Your task to perform on an android device: Go to ESPN.com Image 0: 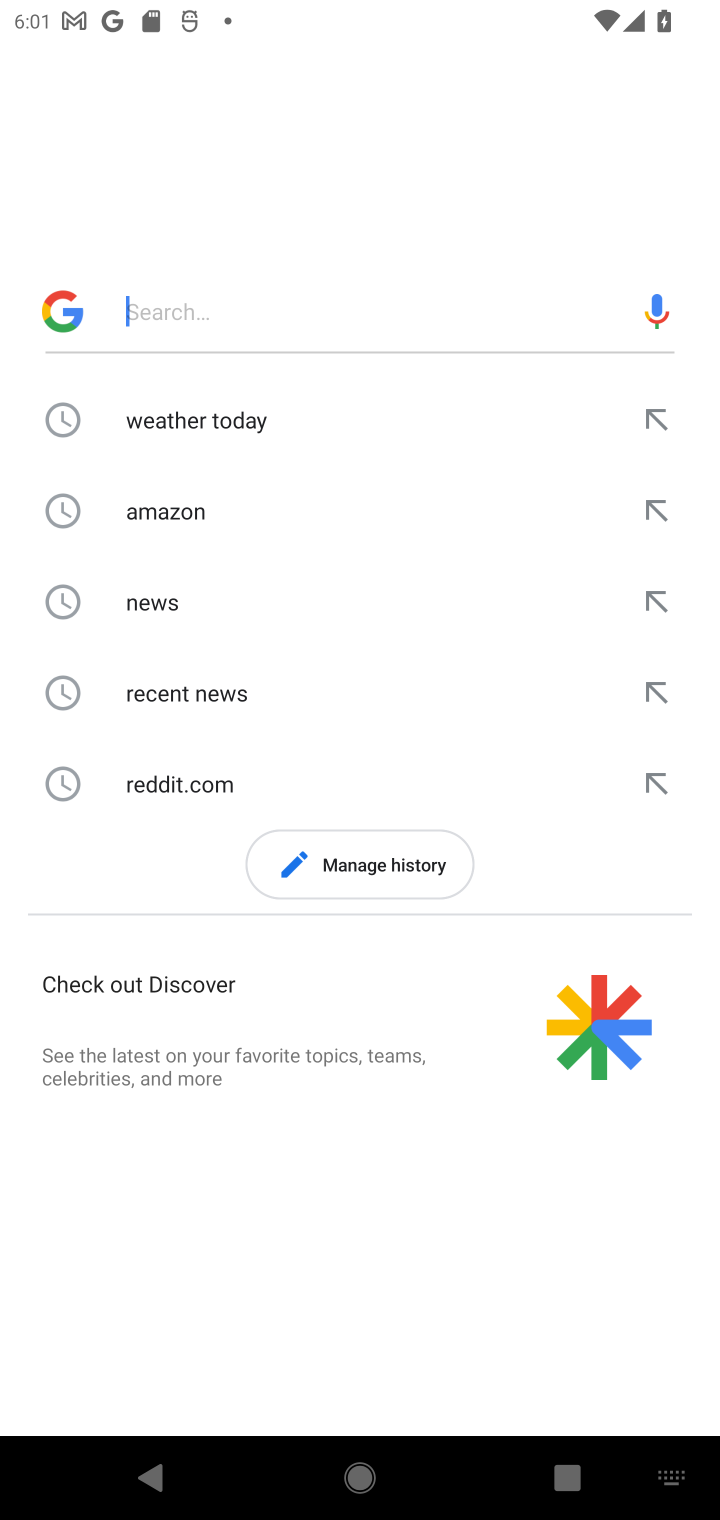
Step 0: press home button
Your task to perform on an android device: Go to ESPN.com Image 1: 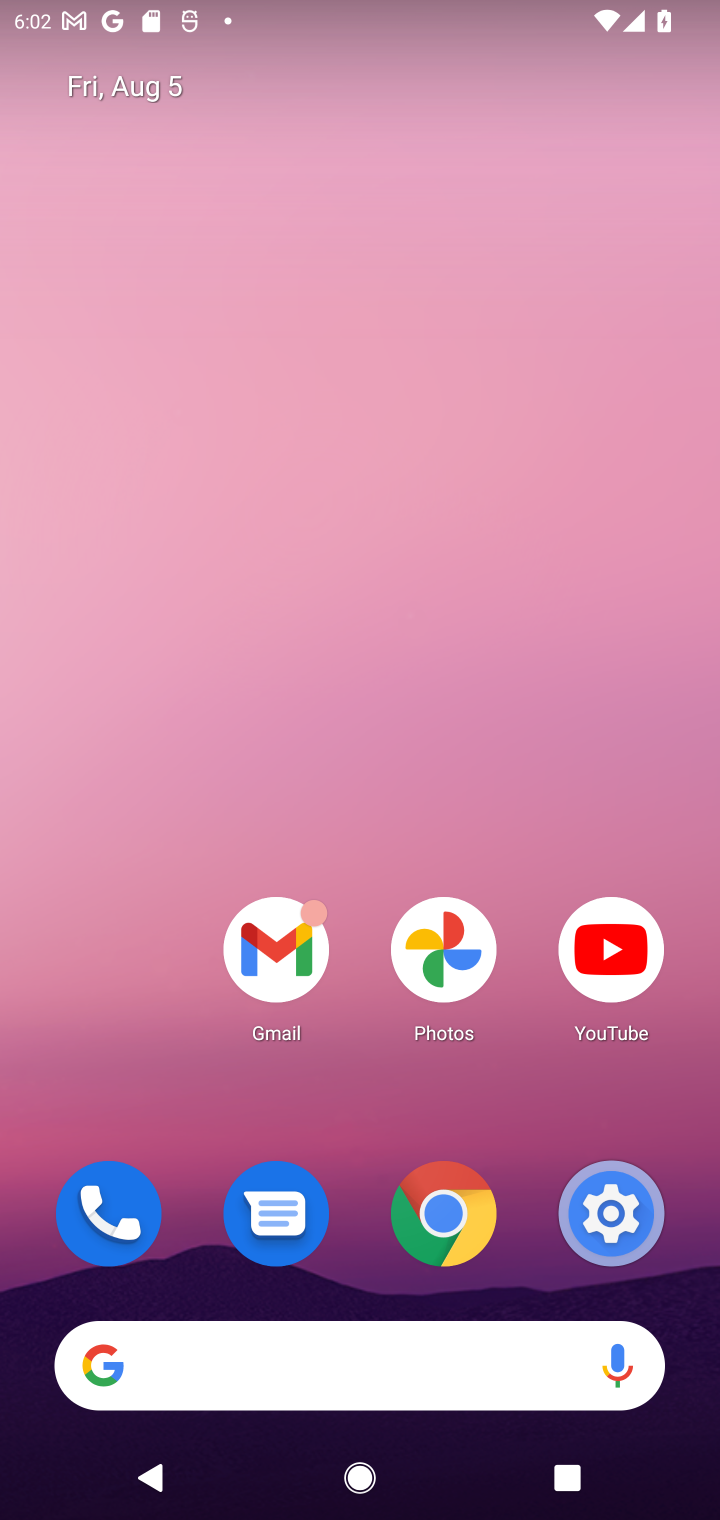
Step 1: click (373, 1340)
Your task to perform on an android device: Go to ESPN.com Image 2: 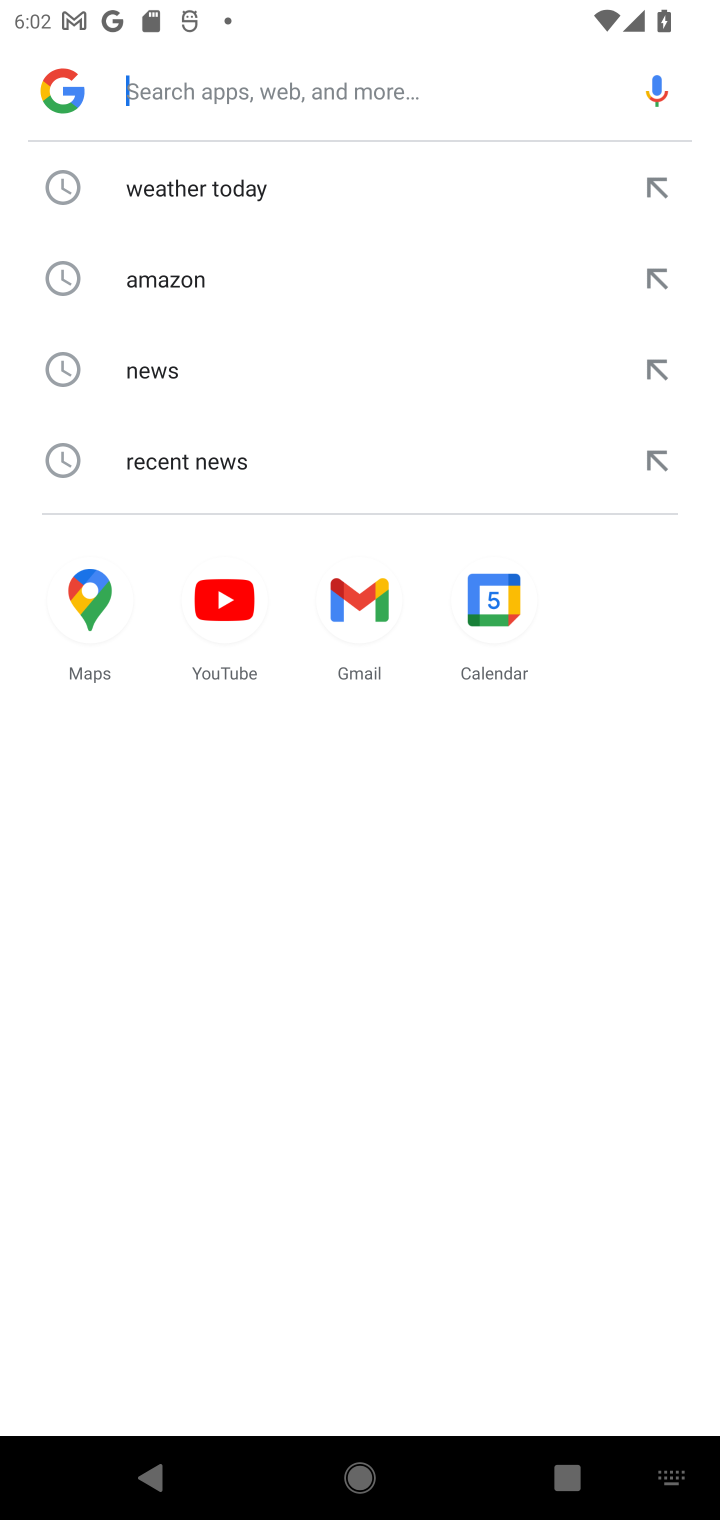
Step 2: type "espn"
Your task to perform on an android device: Go to ESPN.com Image 3: 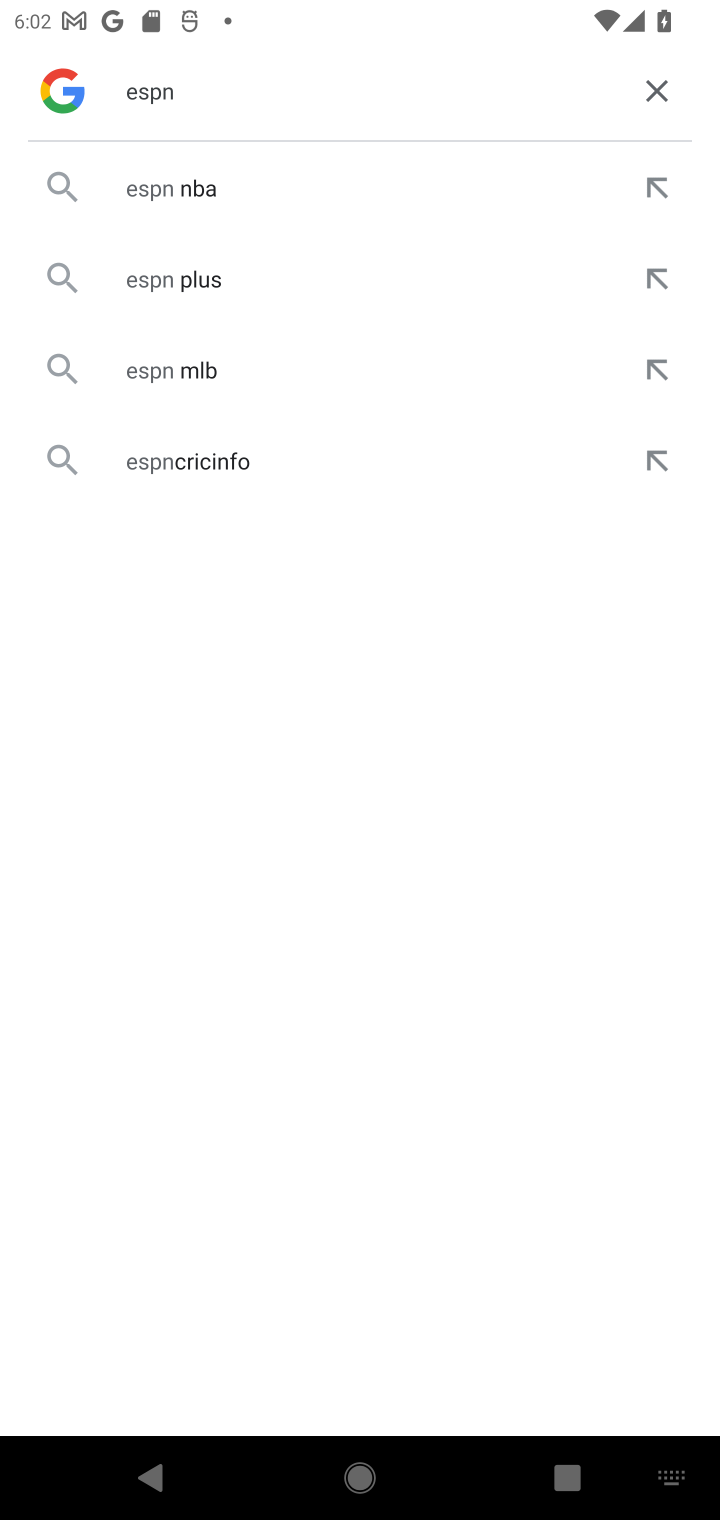
Step 3: click (319, 206)
Your task to perform on an android device: Go to ESPN.com Image 4: 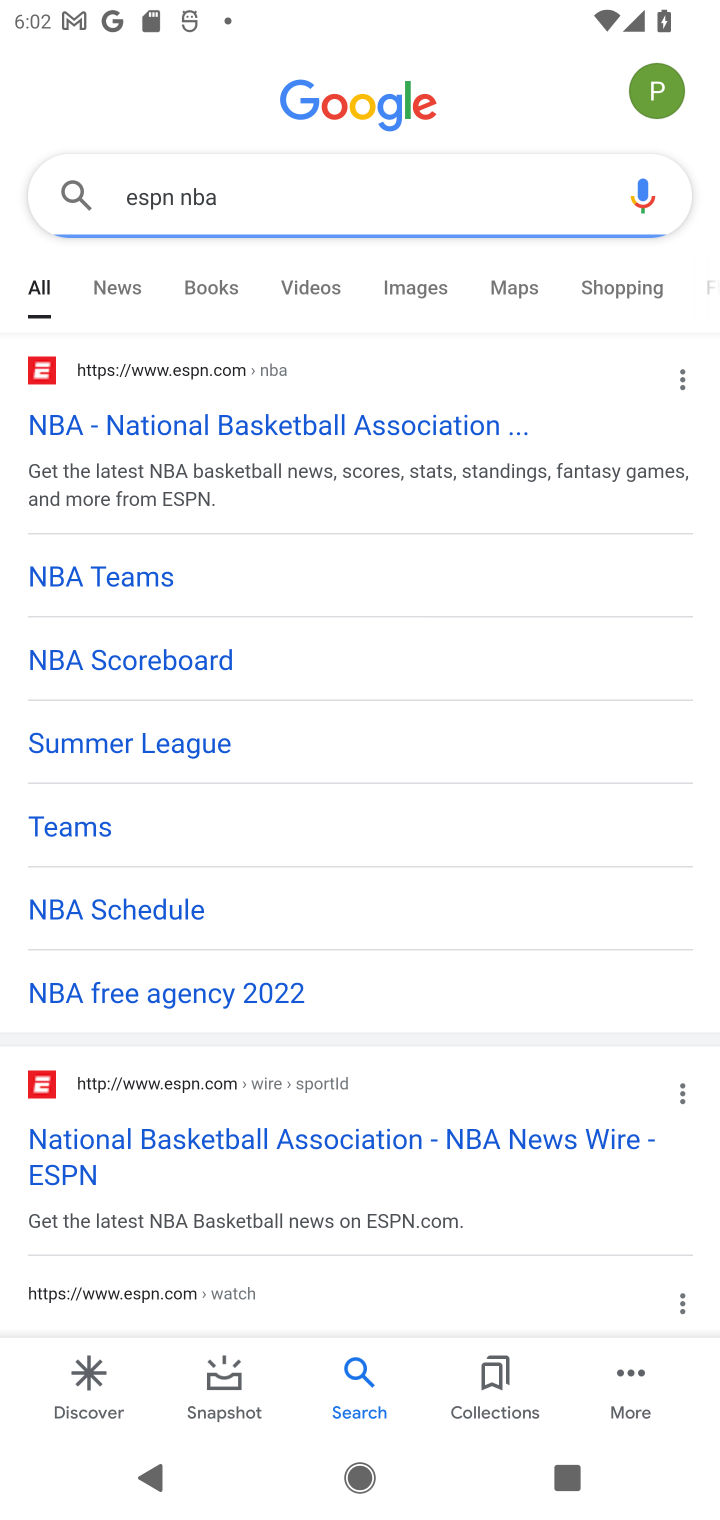
Step 4: click (296, 399)
Your task to perform on an android device: Go to ESPN.com Image 5: 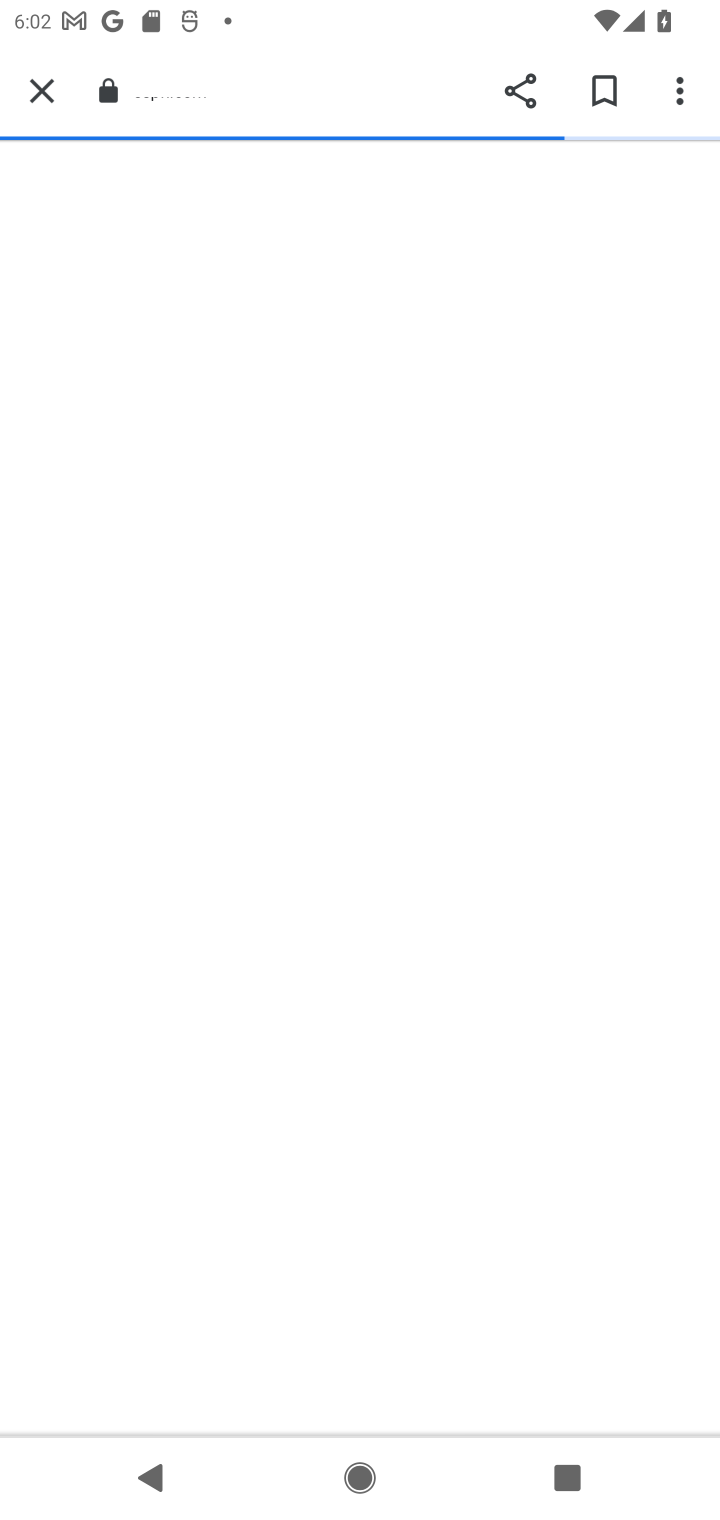
Step 5: task complete